Your task to perform on an android device: uninstall "Pluto TV - Live TV and Movies" Image 0: 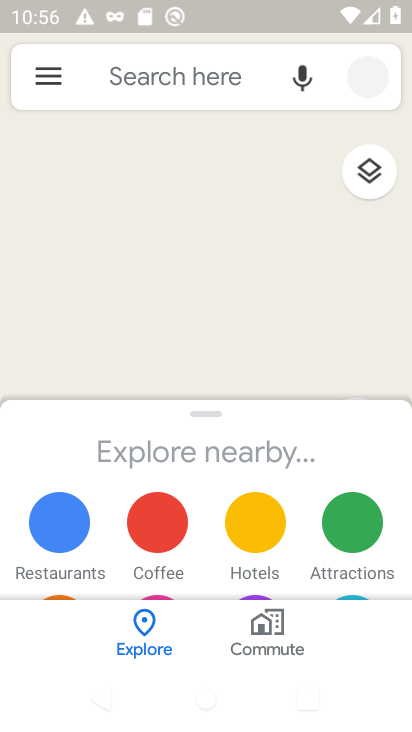
Step 0: press home button
Your task to perform on an android device: uninstall "Pluto TV - Live TV and Movies" Image 1: 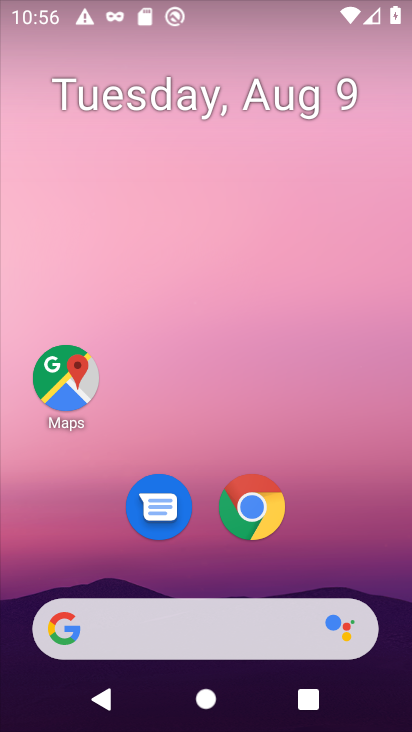
Step 1: drag from (148, 639) to (193, 152)
Your task to perform on an android device: uninstall "Pluto TV - Live TV and Movies" Image 2: 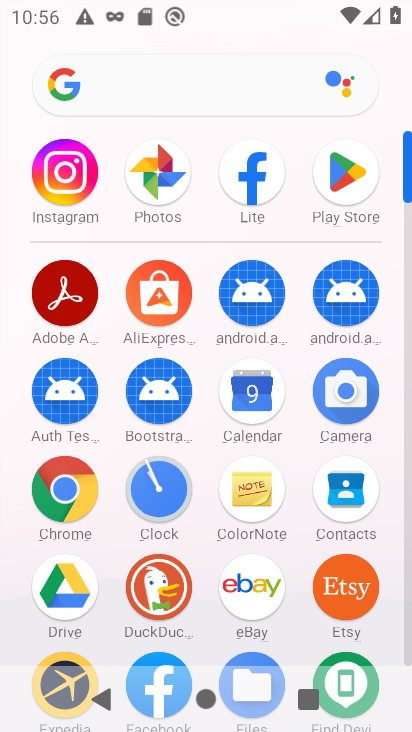
Step 2: click (345, 172)
Your task to perform on an android device: uninstall "Pluto TV - Live TV and Movies" Image 3: 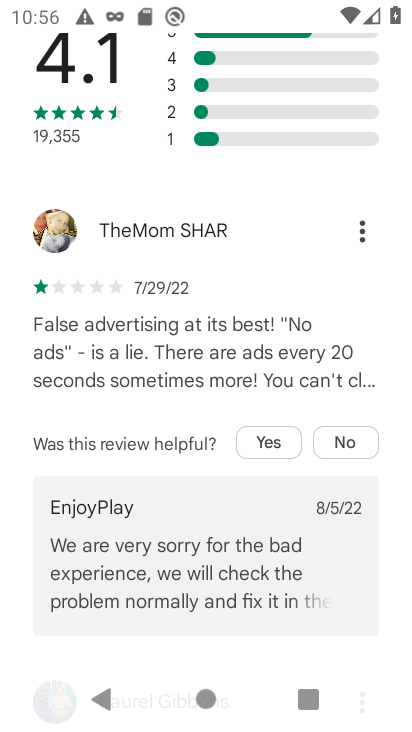
Step 3: drag from (258, 172) to (127, 576)
Your task to perform on an android device: uninstall "Pluto TV - Live TV and Movies" Image 4: 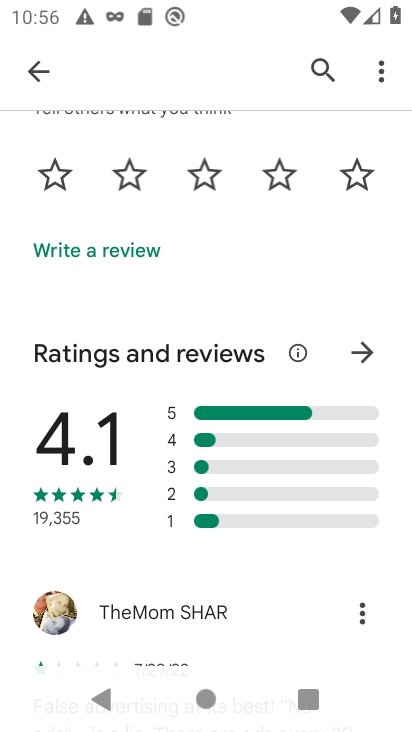
Step 4: click (315, 69)
Your task to perform on an android device: uninstall "Pluto TV - Live TV and Movies" Image 5: 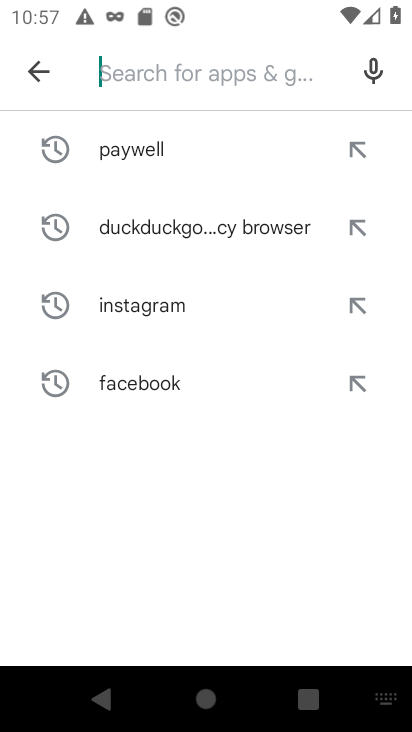
Step 5: type "Pluto TV - Live TV and Movies"
Your task to perform on an android device: uninstall "Pluto TV - Live TV and Movies" Image 6: 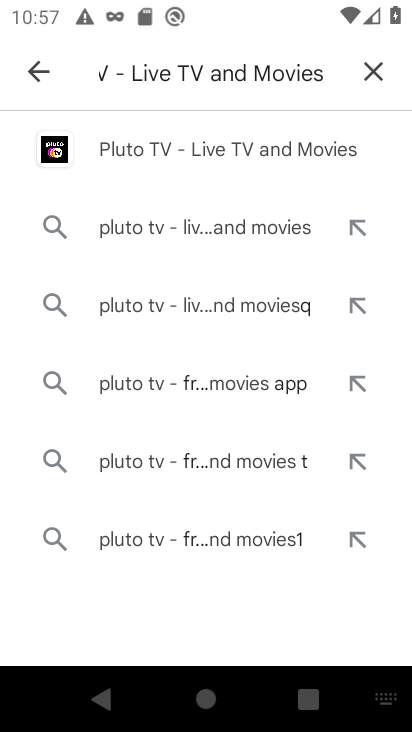
Step 6: click (328, 152)
Your task to perform on an android device: uninstall "Pluto TV - Live TV and Movies" Image 7: 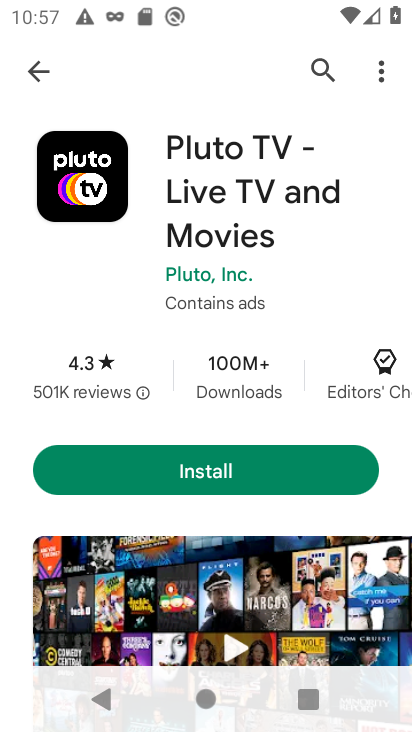
Step 7: task complete